Your task to perform on an android device: What's the weather going to be tomorrow? Image 0: 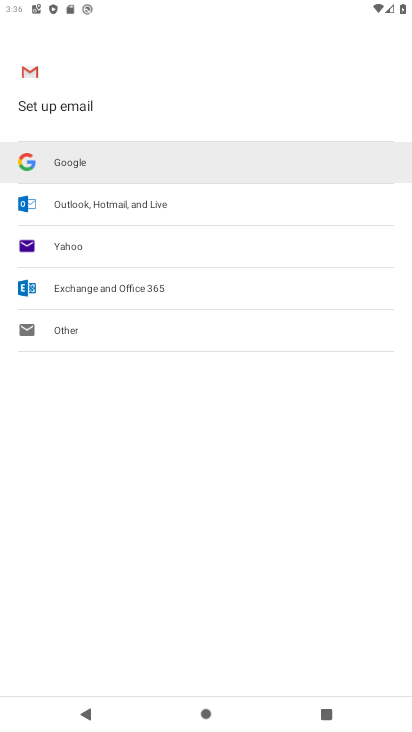
Step 0: press home button
Your task to perform on an android device: What's the weather going to be tomorrow? Image 1: 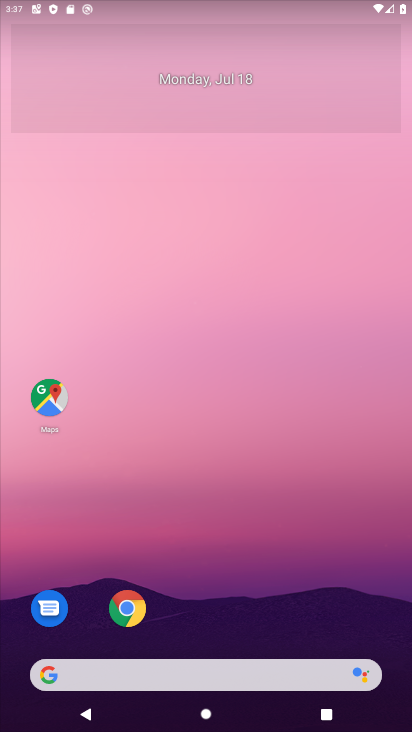
Step 1: click (272, 680)
Your task to perform on an android device: What's the weather going to be tomorrow? Image 2: 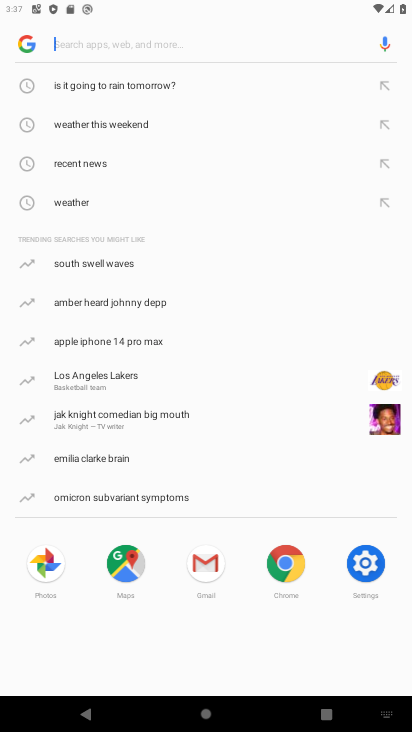
Step 2: type "What's the weather going to be tomorrow?"
Your task to perform on an android device: What's the weather going to be tomorrow? Image 3: 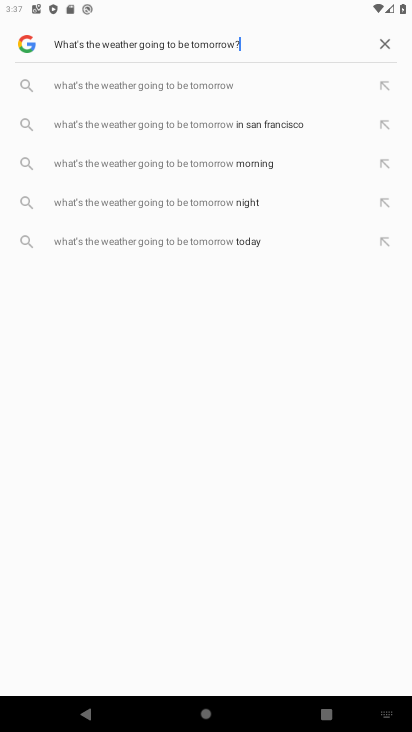
Step 3: press enter
Your task to perform on an android device: What's the weather going to be tomorrow? Image 4: 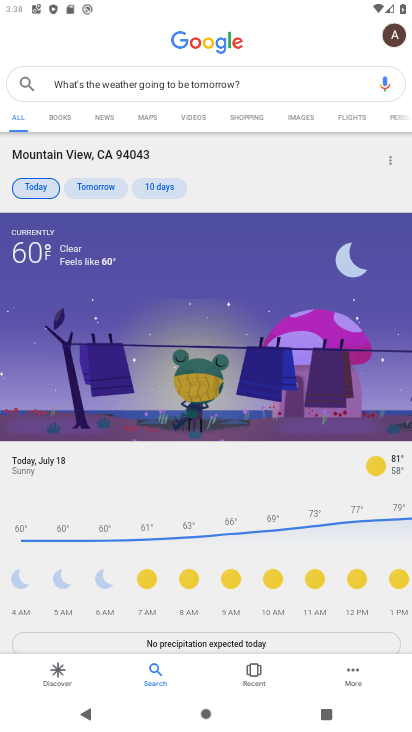
Step 4: task complete